Your task to perform on an android device: Open wifi settings Image 0: 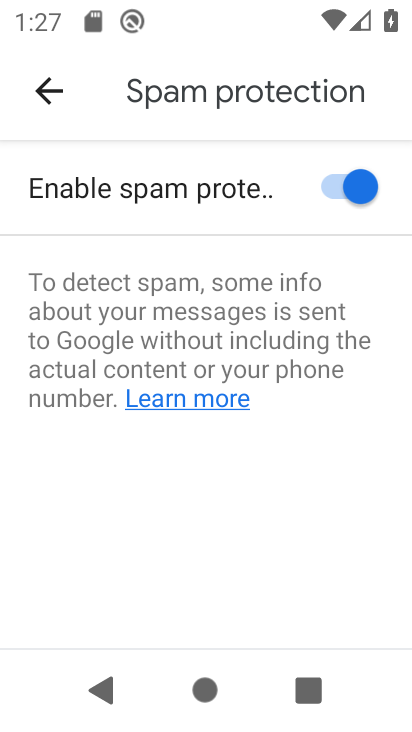
Step 0: press home button
Your task to perform on an android device: Open wifi settings Image 1: 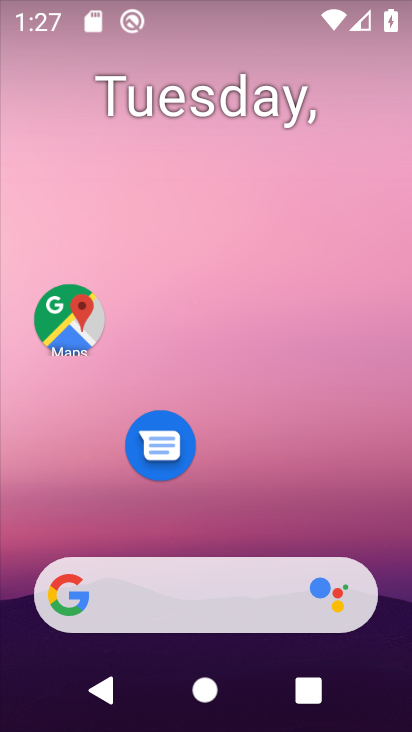
Step 1: drag from (271, 477) to (204, 140)
Your task to perform on an android device: Open wifi settings Image 2: 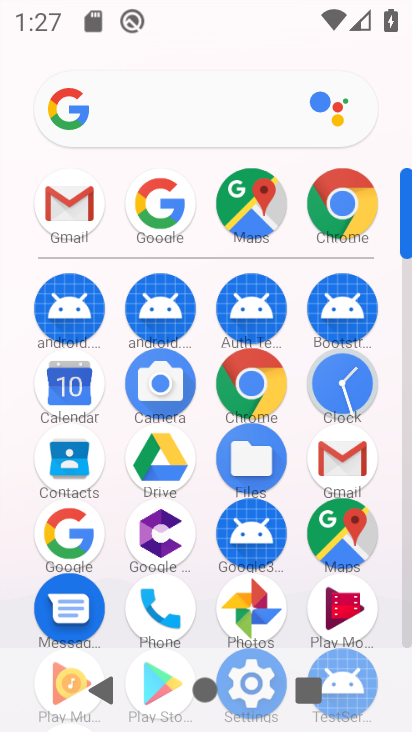
Step 2: click (251, 664)
Your task to perform on an android device: Open wifi settings Image 3: 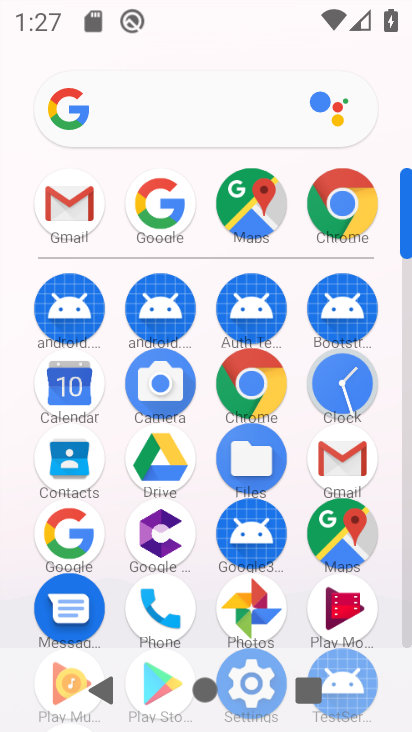
Step 3: click (400, 522)
Your task to perform on an android device: Open wifi settings Image 4: 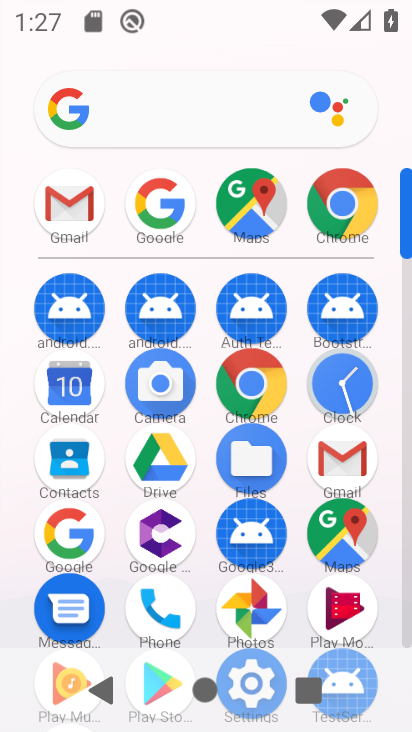
Step 4: click (404, 381)
Your task to perform on an android device: Open wifi settings Image 5: 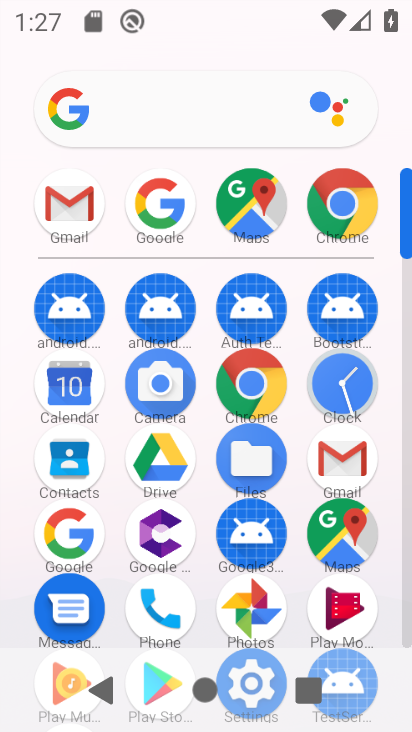
Step 5: click (404, 381)
Your task to perform on an android device: Open wifi settings Image 6: 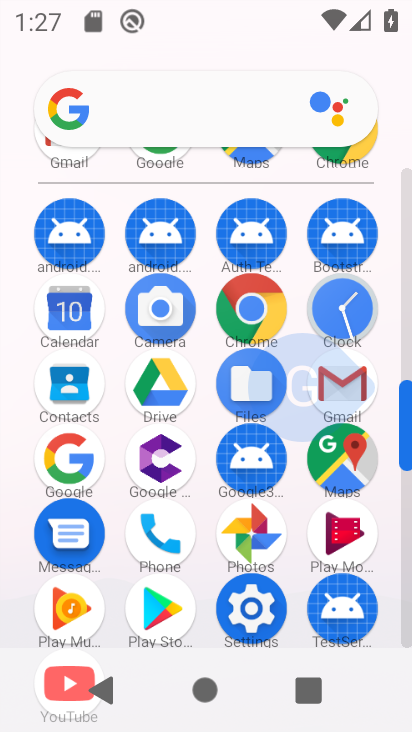
Step 6: click (404, 381)
Your task to perform on an android device: Open wifi settings Image 7: 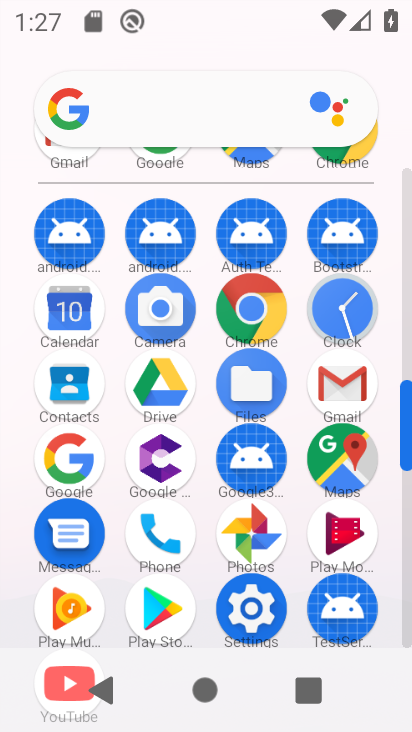
Step 7: click (241, 588)
Your task to perform on an android device: Open wifi settings Image 8: 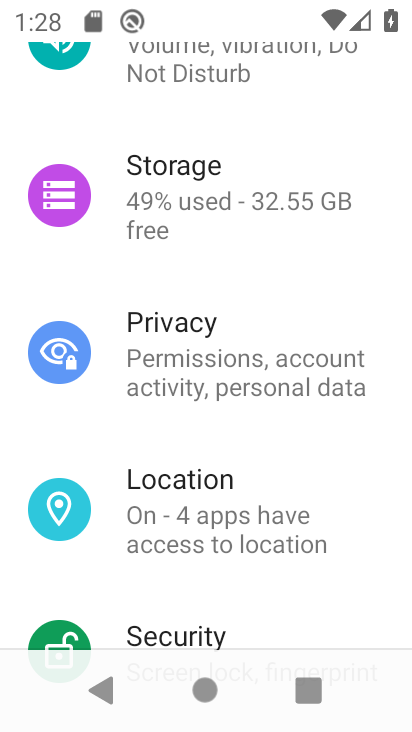
Step 8: drag from (188, 281) to (171, 731)
Your task to perform on an android device: Open wifi settings Image 9: 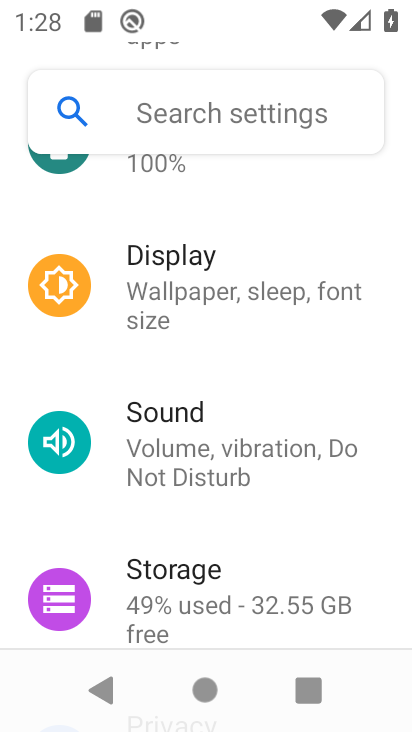
Step 9: drag from (157, 212) to (369, 721)
Your task to perform on an android device: Open wifi settings Image 10: 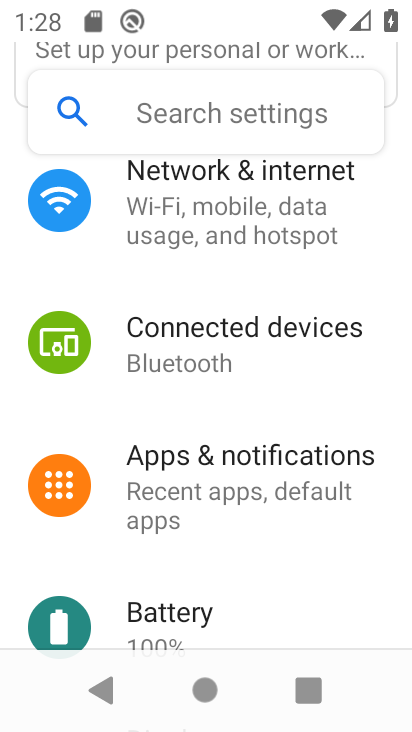
Step 10: click (189, 168)
Your task to perform on an android device: Open wifi settings Image 11: 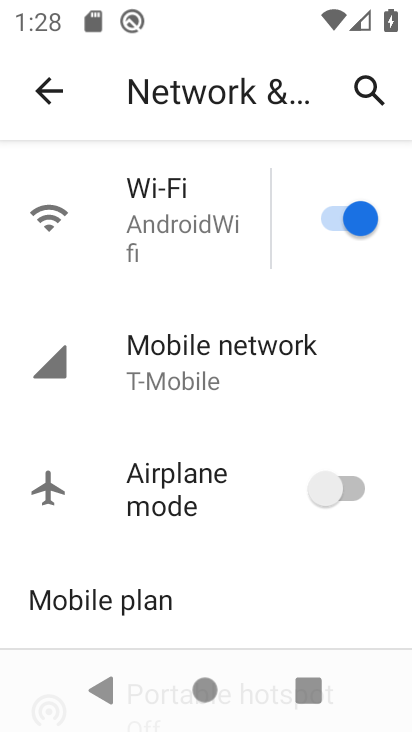
Step 11: click (141, 195)
Your task to perform on an android device: Open wifi settings Image 12: 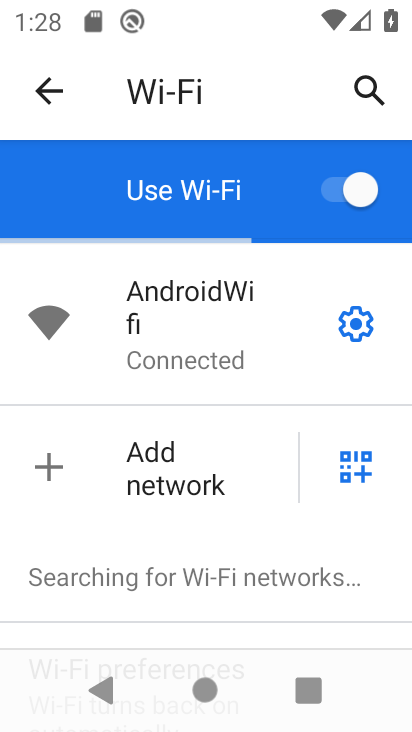
Step 12: task complete